Your task to perform on an android device: Go to display settings Image 0: 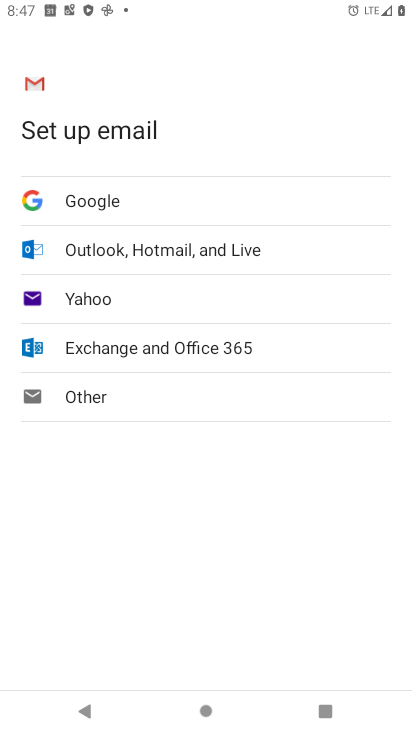
Step 0: press home button
Your task to perform on an android device: Go to display settings Image 1: 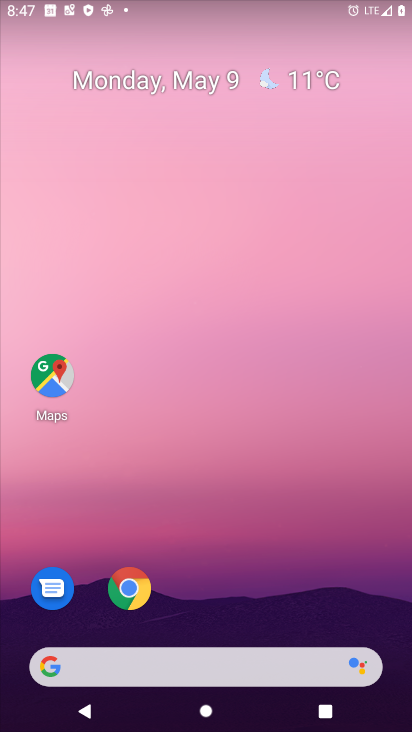
Step 1: drag from (334, 618) to (277, 55)
Your task to perform on an android device: Go to display settings Image 2: 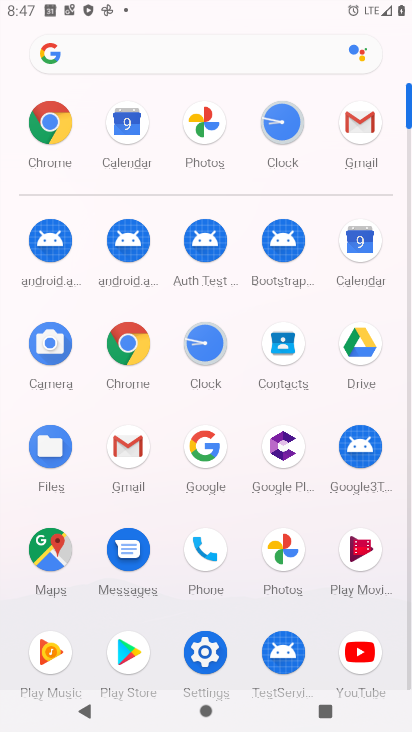
Step 2: click (197, 662)
Your task to perform on an android device: Go to display settings Image 3: 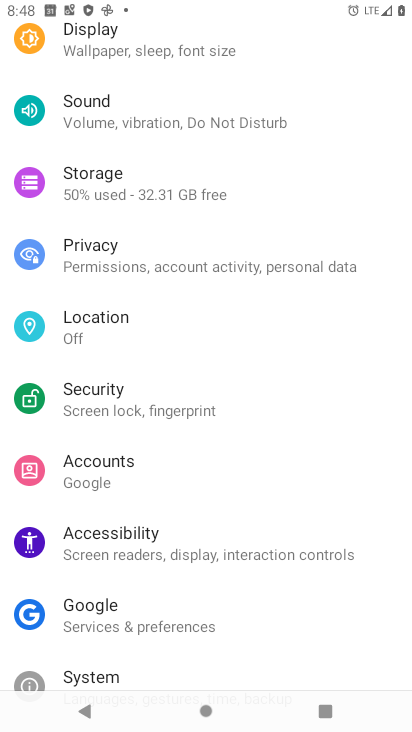
Step 3: click (114, 16)
Your task to perform on an android device: Go to display settings Image 4: 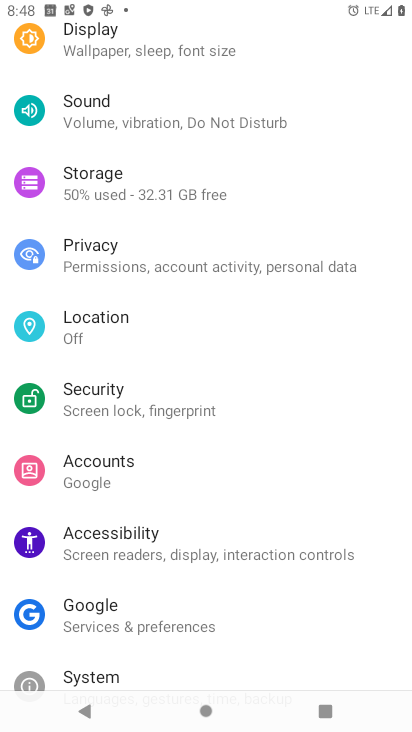
Step 4: click (136, 45)
Your task to perform on an android device: Go to display settings Image 5: 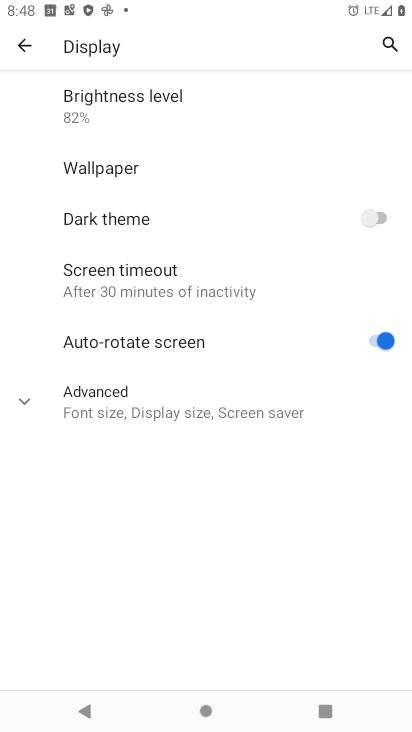
Step 5: task complete